Your task to perform on an android device: open chrome privacy settings Image 0: 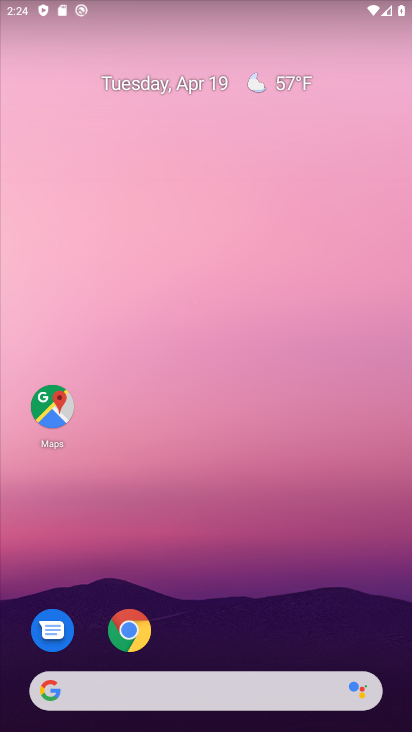
Step 0: drag from (223, 631) to (244, 71)
Your task to perform on an android device: open chrome privacy settings Image 1: 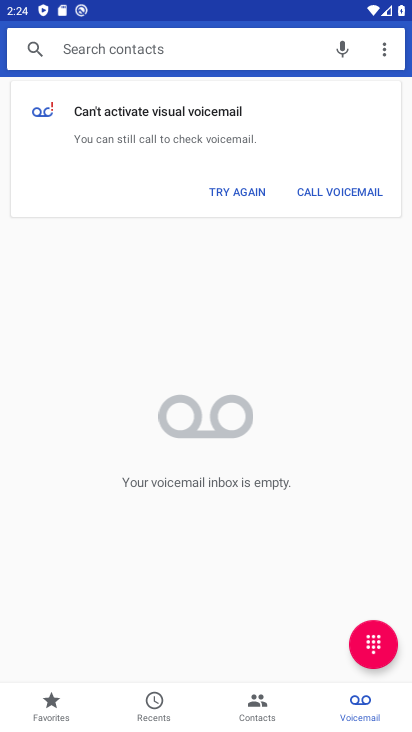
Step 1: press home button
Your task to perform on an android device: open chrome privacy settings Image 2: 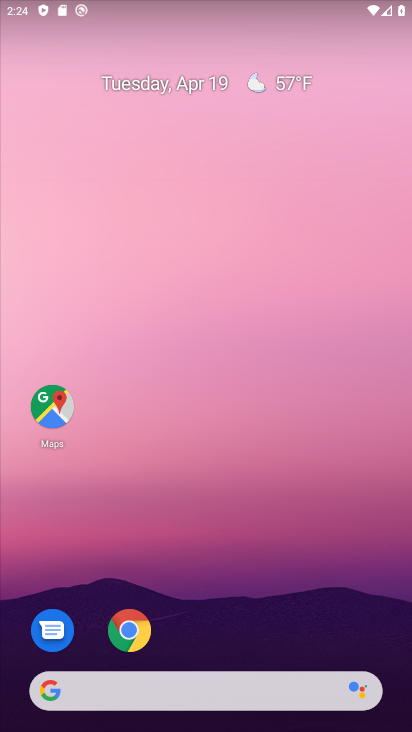
Step 2: click (122, 630)
Your task to perform on an android device: open chrome privacy settings Image 3: 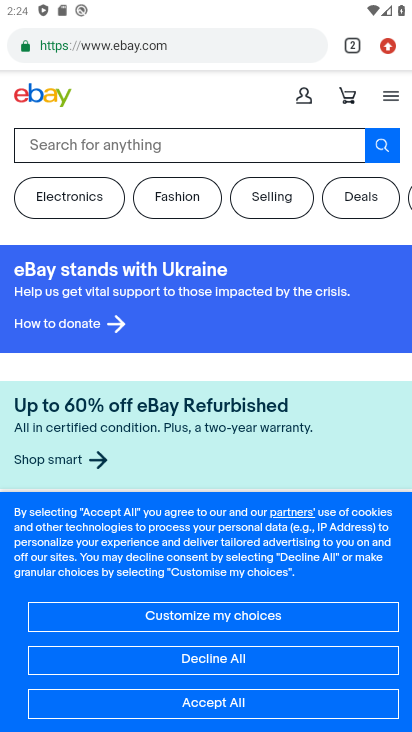
Step 3: click (390, 43)
Your task to perform on an android device: open chrome privacy settings Image 4: 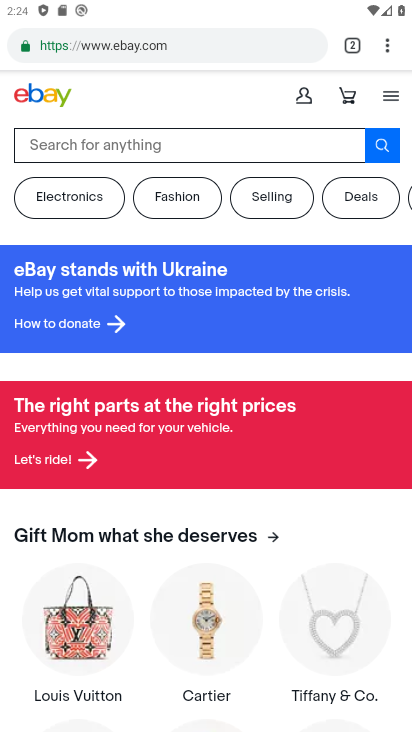
Step 4: click (386, 49)
Your task to perform on an android device: open chrome privacy settings Image 5: 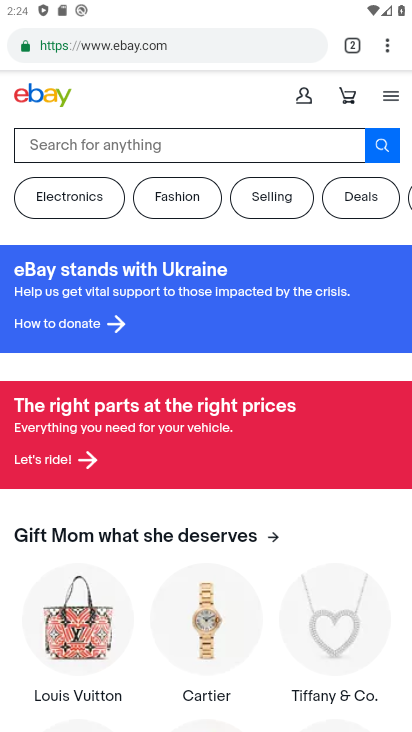
Step 5: click (386, 47)
Your task to perform on an android device: open chrome privacy settings Image 6: 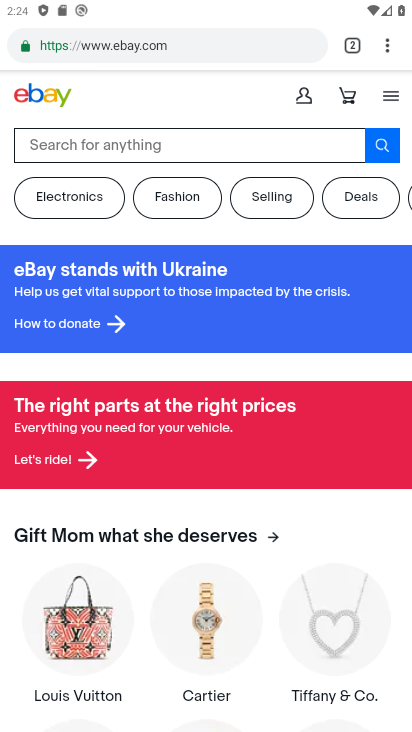
Step 6: click (387, 47)
Your task to perform on an android device: open chrome privacy settings Image 7: 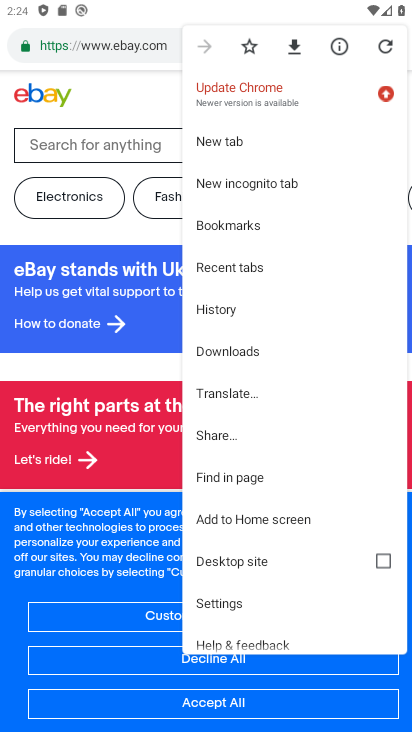
Step 7: click (222, 606)
Your task to perform on an android device: open chrome privacy settings Image 8: 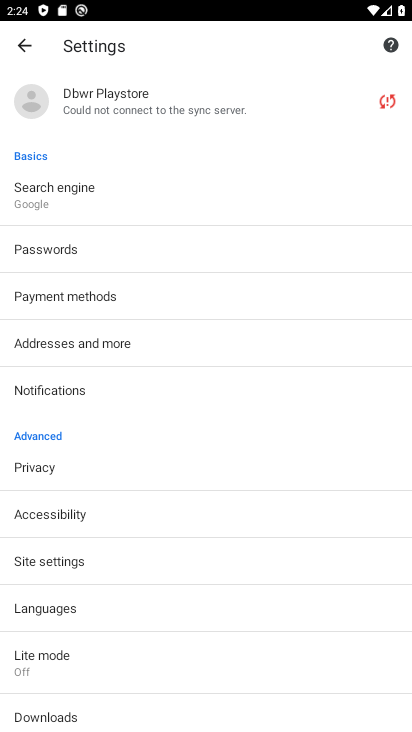
Step 8: click (45, 463)
Your task to perform on an android device: open chrome privacy settings Image 9: 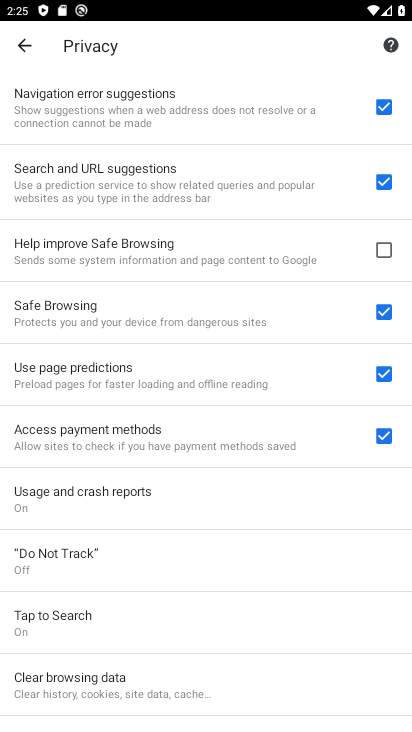
Step 9: task complete